Your task to perform on an android device: open a bookmark in the chrome app Image 0: 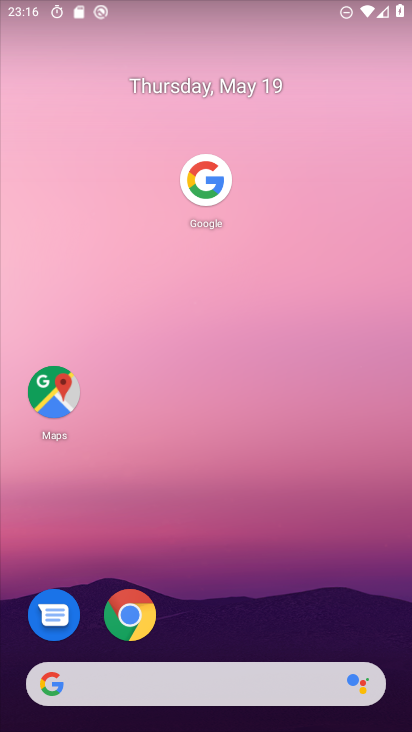
Step 0: click (132, 614)
Your task to perform on an android device: open a bookmark in the chrome app Image 1: 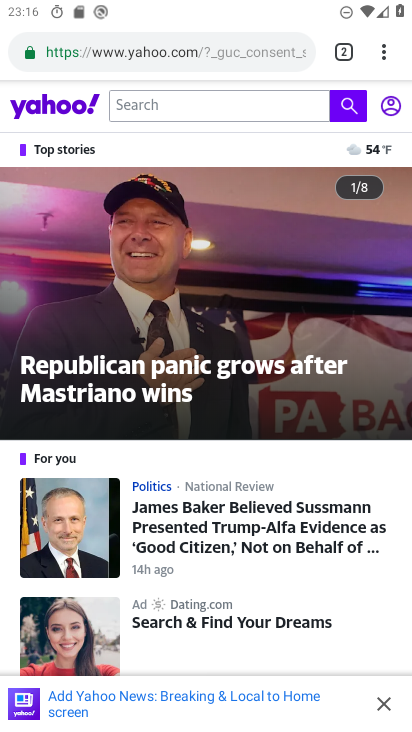
Step 1: click (377, 55)
Your task to perform on an android device: open a bookmark in the chrome app Image 2: 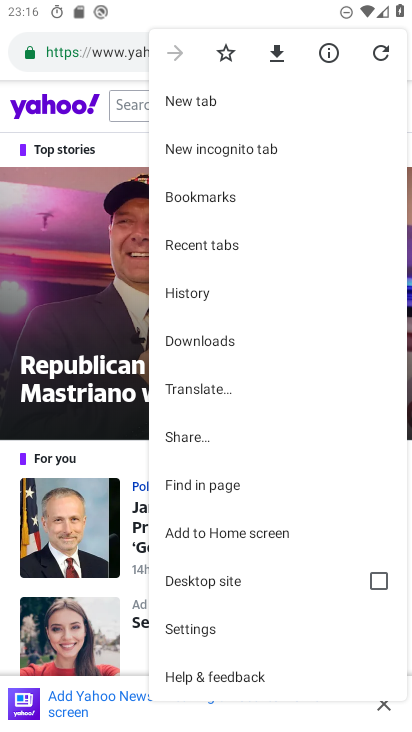
Step 2: click (204, 202)
Your task to perform on an android device: open a bookmark in the chrome app Image 3: 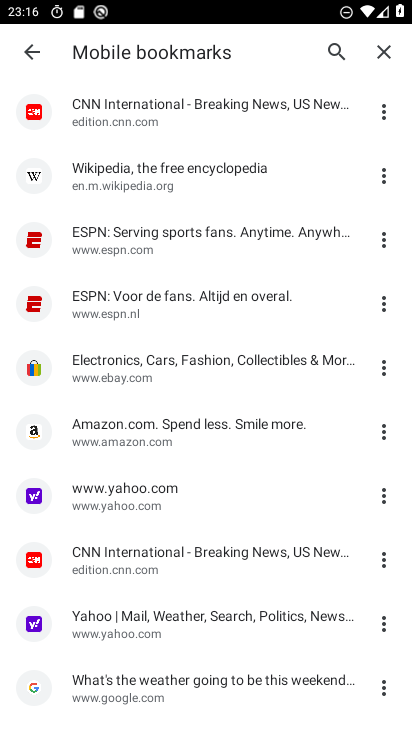
Step 3: click (145, 431)
Your task to perform on an android device: open a bookmark in the chrome app Image 4: 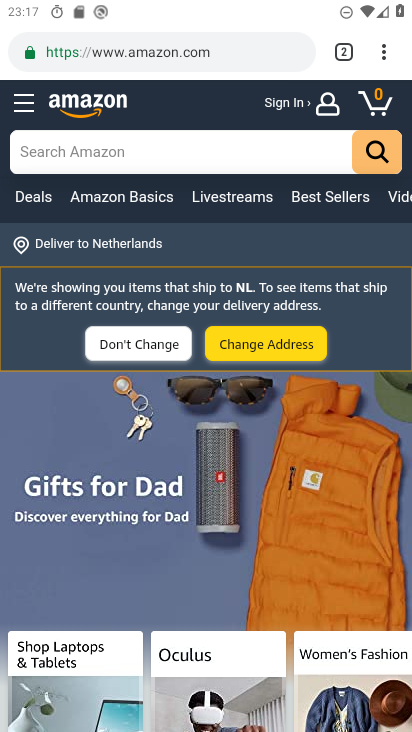
Step 4: task complete